Your task to perform on an android device: toggle translation in the chrome app Image 0: 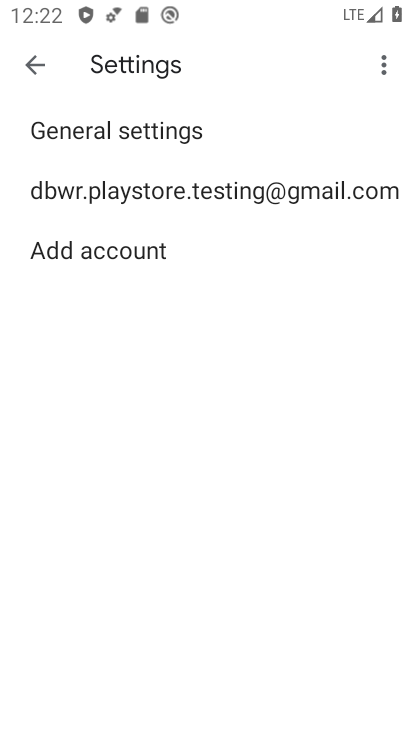
Step 0: press home button
Your task to perform on an android device: toggle translation in the chrome app Image 1: 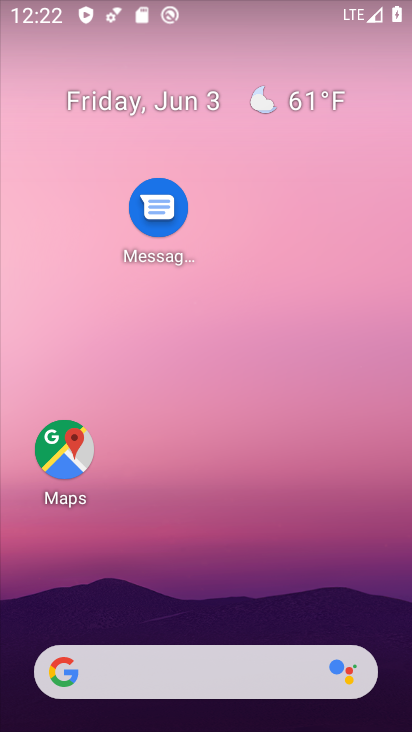
Step 1: drag from (197, 648) to (134, 14)
Your task to perform on an android device: toggle translation in the chrome app Image 2: 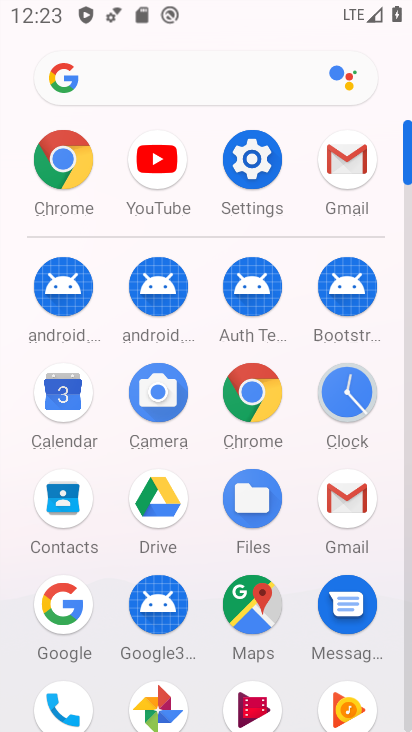
Step 2: click (263, 405)
Your task to perform on an android device: toggle translation in the chrome app Image 3: 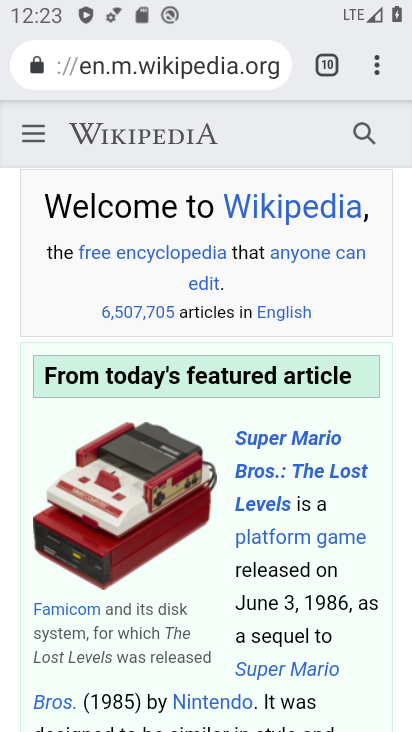
Step 3: drag from (373, 62) to (162, 636)
Your task to perform on an android device: toggle translation in the chrome app Image 4: 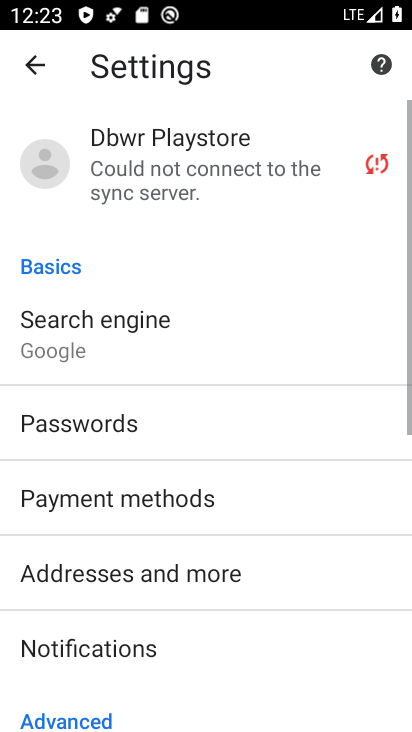
Step 4: drag from (159, 635) to (40, 3)
Your task to perform on an android device: toggle translation in the chrome app Image 5: 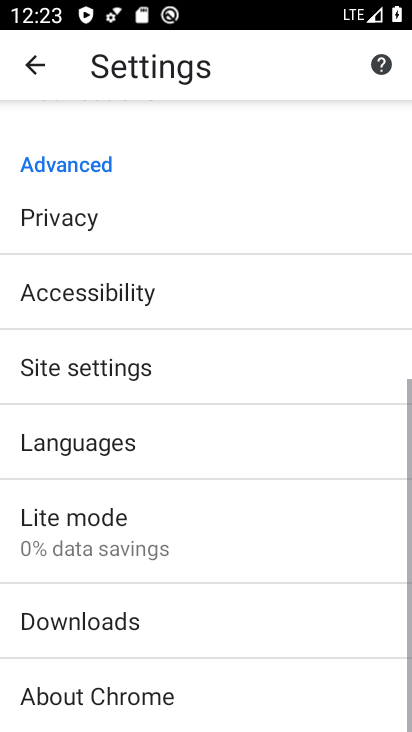
Step 5: click (66, 459)
Your task to perform on an android device: toggle translation in the chrome app Image 6: 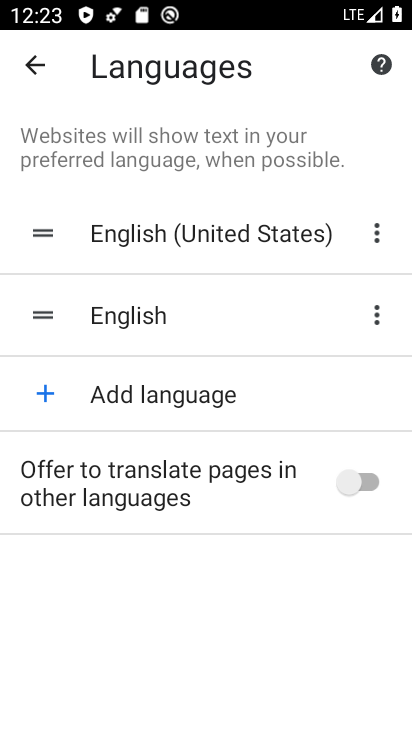
Step 6: click (117, 511)
Your task to perform on an android device: toggle translation in the chrome app Image 7: 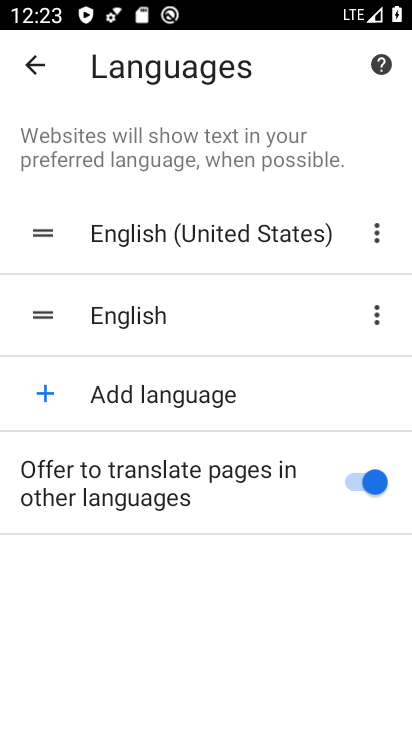
Step 7: task complete